Your task to perform on an android device: Clear all items from cart on walmart.com. Search for "corsair k70" on walmart.com, select the first entry, and add it to the cart. Image 0: 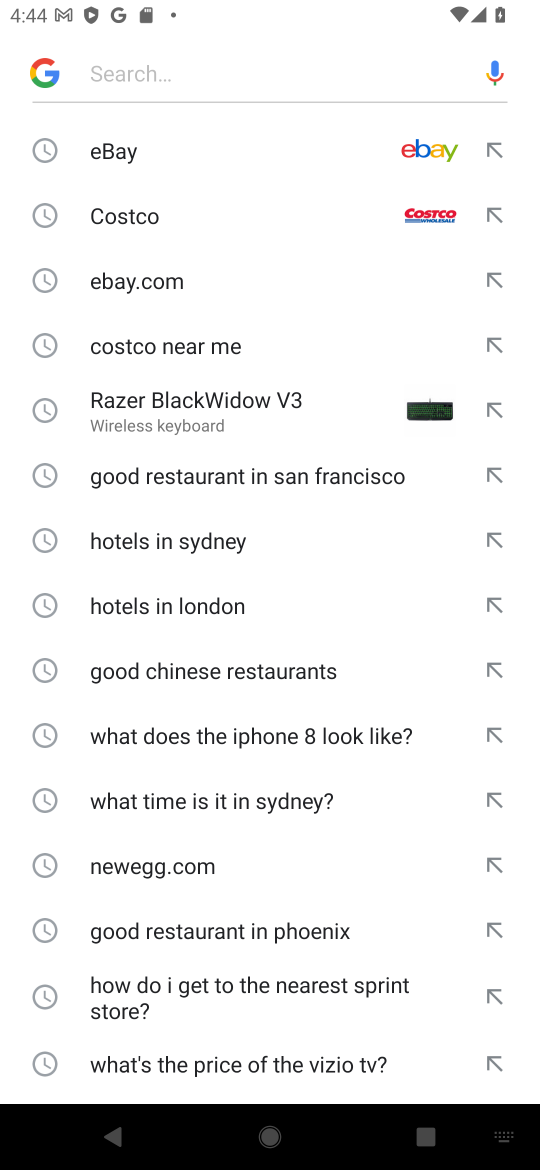
Step 0: type "walmart.com"
Your task to perform on an android device: Clear all items from cart on walmart.com. Search for "corsair k70" on walmart.com, select the first entry, and add it to the cart. Image 1: 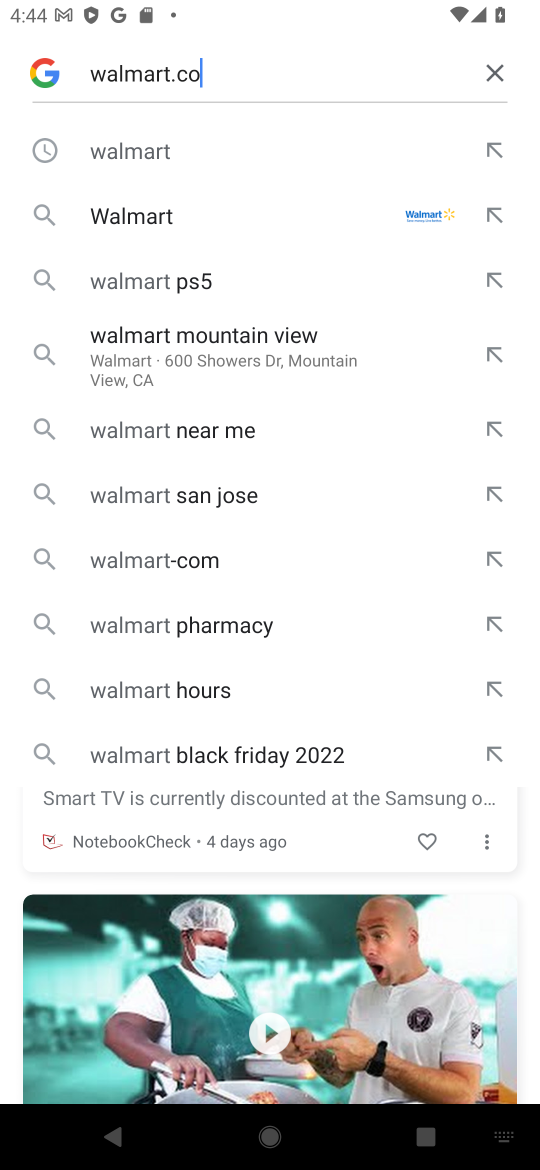
Step 1: type ""
Your task to perform on an android device: Clear all items from cart on walmart.com. Search for "corsair k70" on walmart.com, select the first entry, and add it to the cart. Image 2: 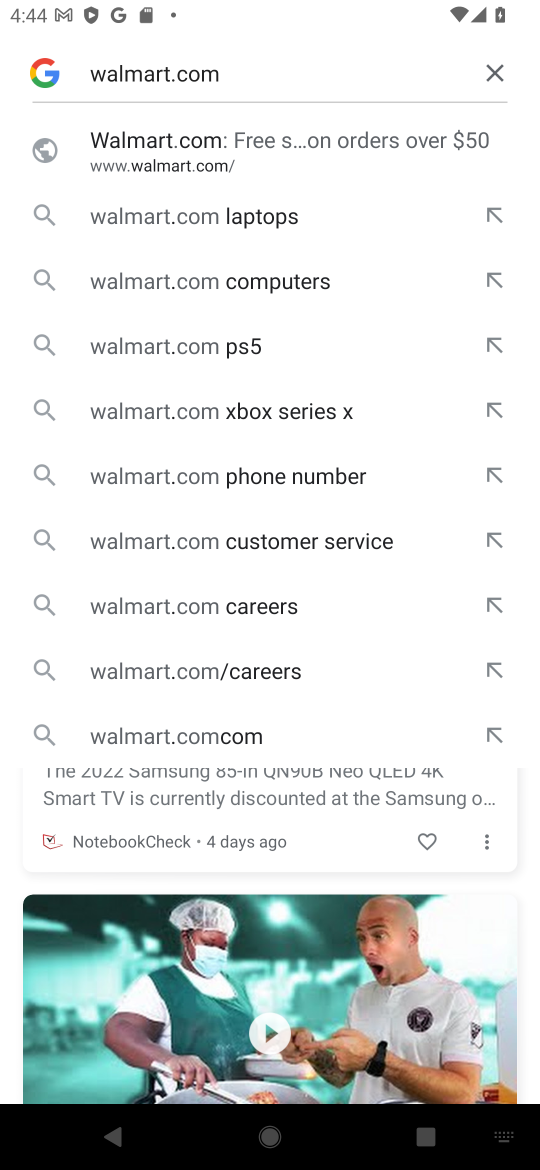
Step 2: press enter
Your task to perform on an android device: Clear all items from cart on walmart.com. Search for "corsair k70" on walmart.com, select the first entry, and add it to the cart. Image 3: 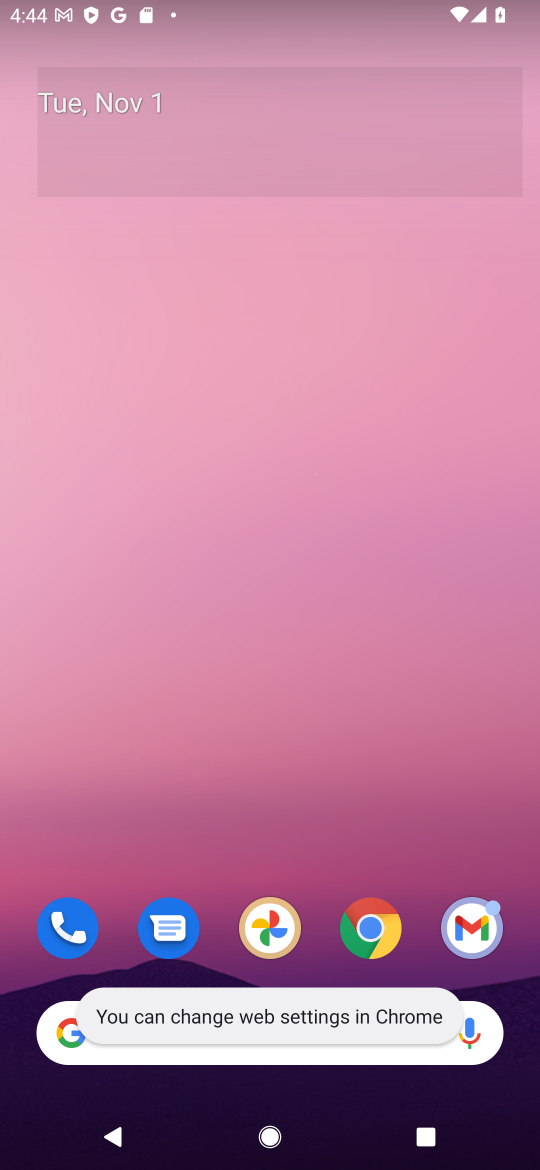
Step 3: click (364, 937)
Your task to perform on an android device: Clear all items from cart on walmart.com. Search for "corsair k70" on walmart.com, select the first entry, and add it to the cart. Image 4: 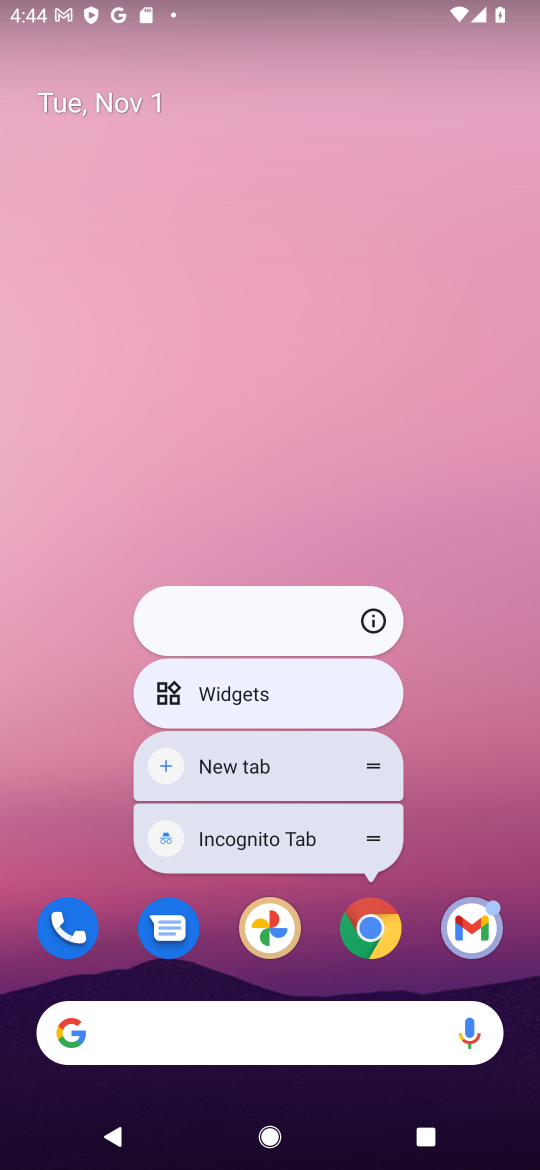
Step 4: click (375, 941)
Your task to perform on an android device: Clear all items from cart on walmart.com. Search for "corsair k70" on walmart.com, select the first entry, and add it to the cart. Image 5: 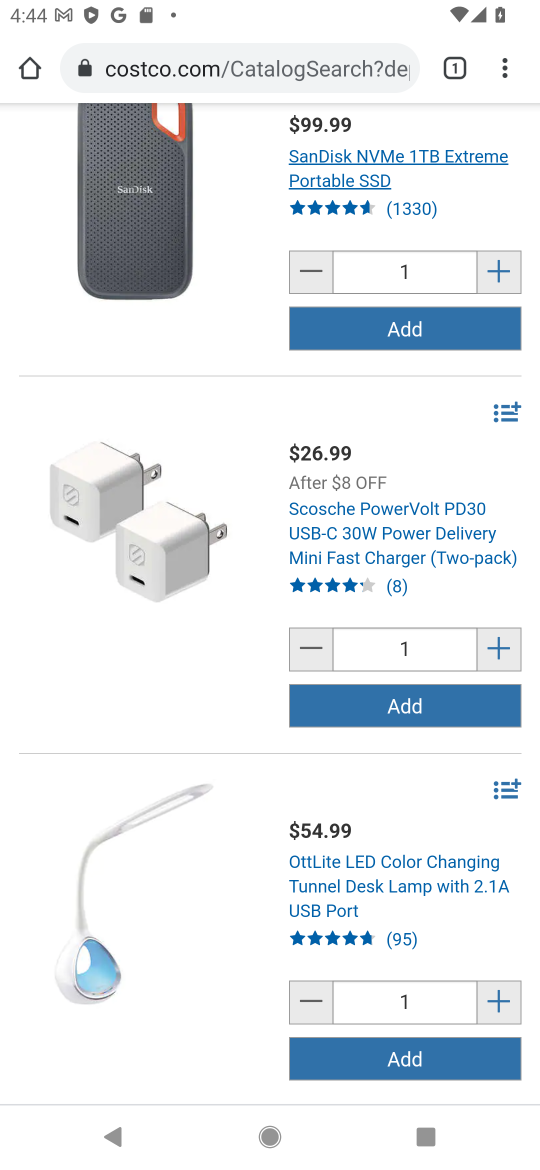
Step 5: click (289, 72)
Your task to perform on an android device: Clear all items from cart on walmart.com. Search for "corsair k70" on walmart.com, select the first entry, and add it to the cart. Image 6: 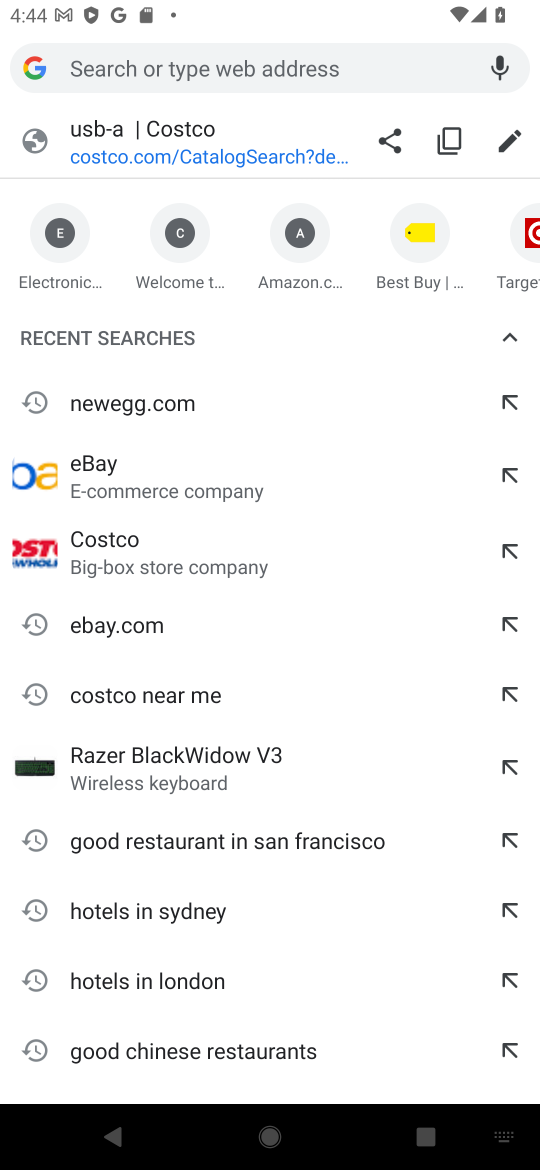
Step 6: type "walmart.com"
Your task to perform on an android device: Clear all items from cart on walmart.com. Search for "corsair k70" on walmart.com, select the first entry, and add it to the cart. Image 7: 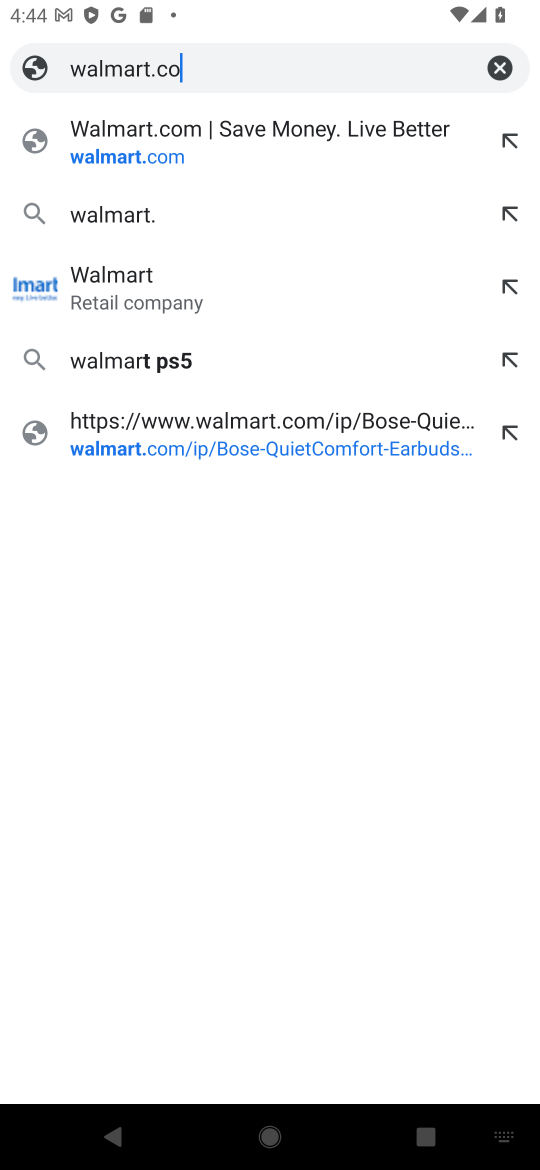
Step 7: type ""
Your task to perform on an android device: Clear all items from cart on walmart.com. Search for "corsair k70" on walmart.com, select the first entry, and add it to the cart. Image 8: 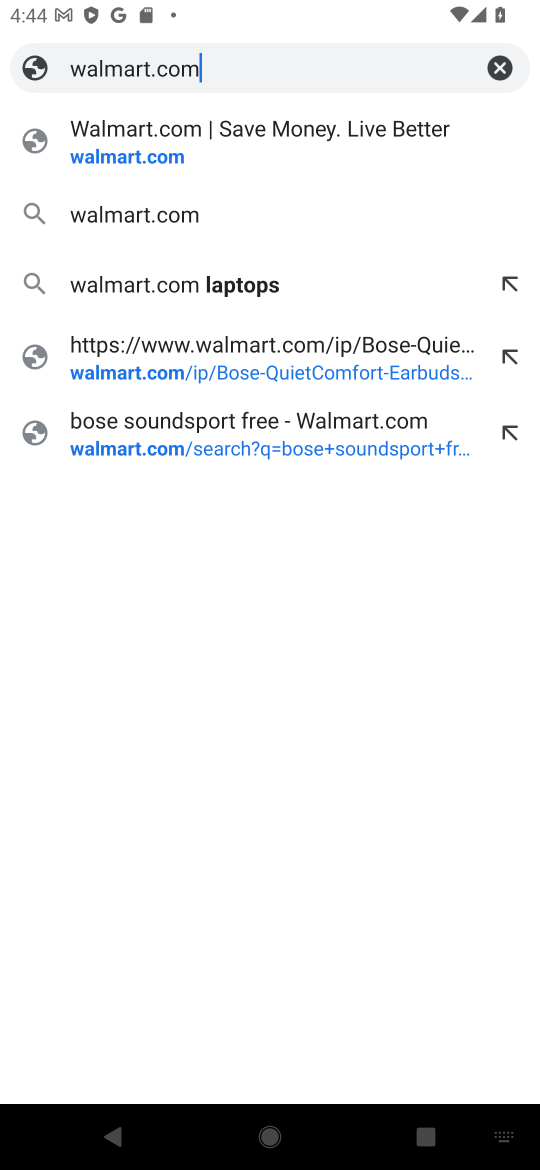
Step 8: press enter
Your task to perform on an android device: Clear all items from cart on walmart.com. Search for "corsair k70" on walmart.com, select the first entry, and add it to the cart. Image 9: 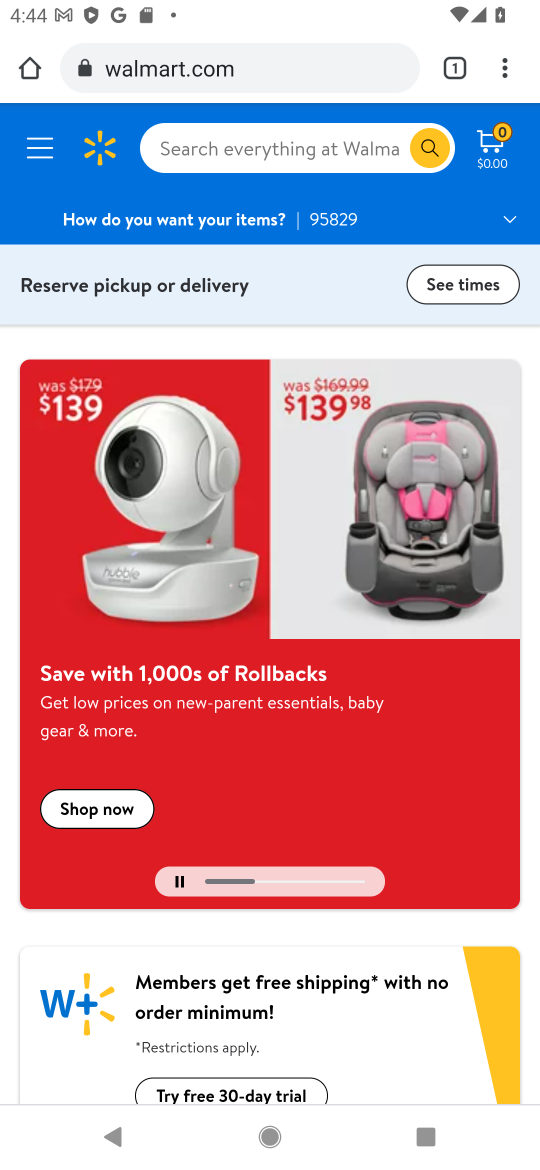
Step 9: click (280, 144)
Your task to perform on an android device: Clear all items from cart on walmart.com. Search for "corsair k70" on walmart.com, select the first entry, and add it to the cart. Image 10: 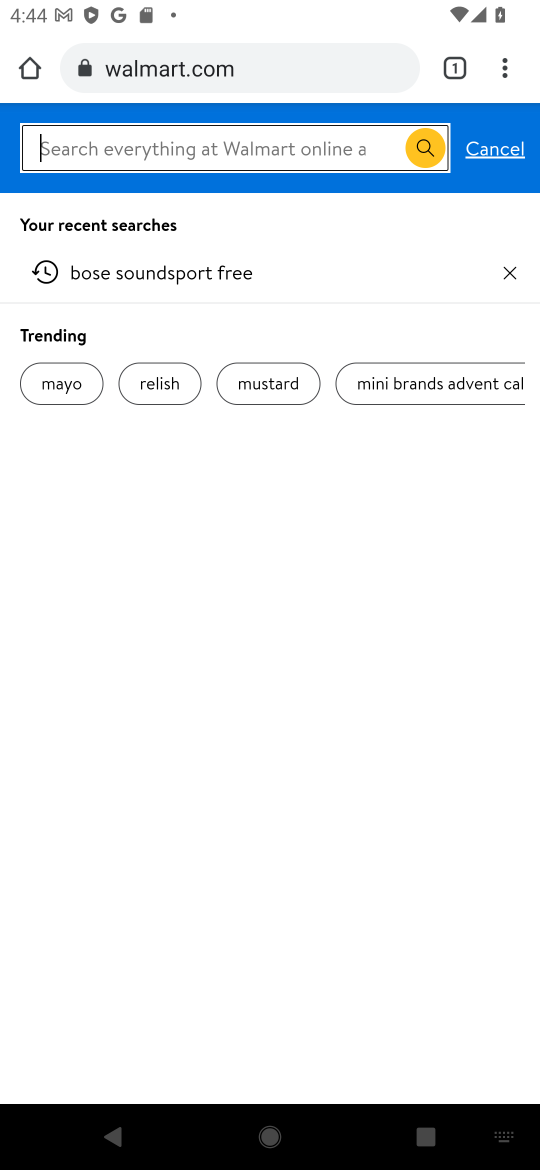
Step 10: click (496, 156)
Your task to perform on an android device: Clear all items from cart on walmart.com. Search for "corsair k70" on walmart.com, select the first entry, and add it to the cart. Image 11: 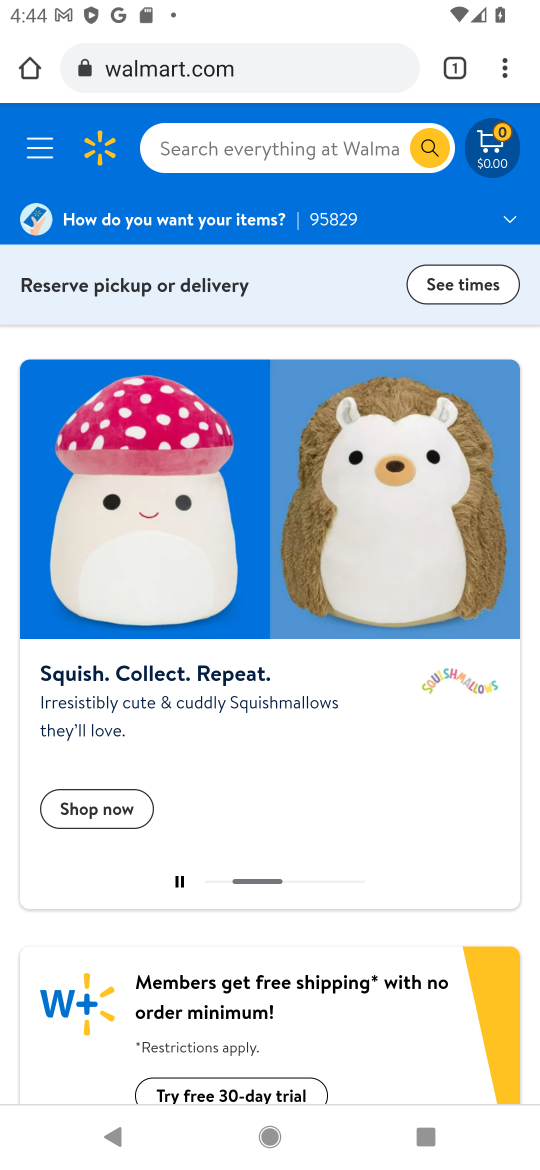
Step 11: click (496, 156)
Your task to perform on an android device: Clear all items from cart on walmart.com. Search for "corsair k70" on walmart.com, select the first entry, and add it to the cart. Image 12: 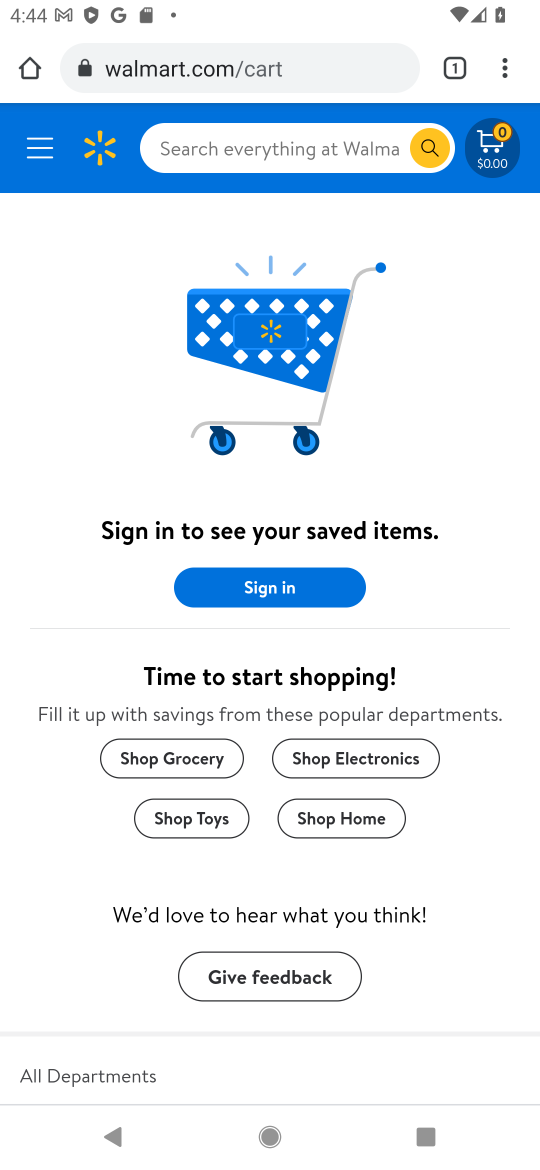
Step 12: click (246, 141)
Your task to perform on an android device: Clear all items from cart on walmart.com. Search for "corsair k70" on walmart.com, select the first entry, and add it to the cart. Image 13: 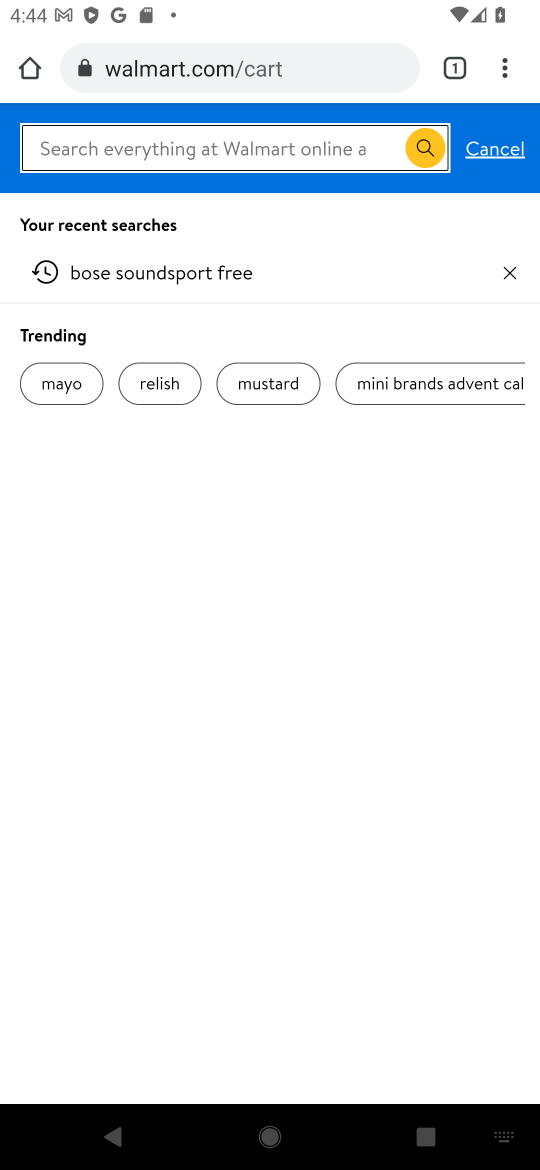
Step 13: type "corsair k70"
Your task to perform on an android device: Clear all items from cart on walmart.com. Search for "corsair k70" on walmart.com, select the first entry, and add it to the cart. Image 14: 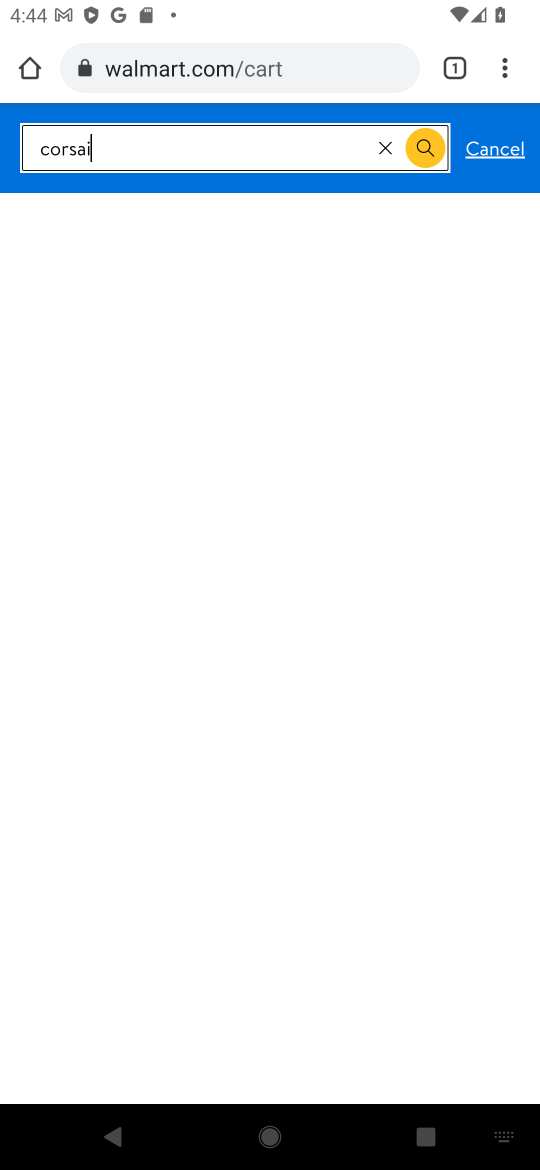
Step 14: type ""
Your task to perform on an android device: Clear all items from cart on walmart.com. Search for "corsair k70" on walmart.com, select the first entry, and add it to the cart. Image 15: 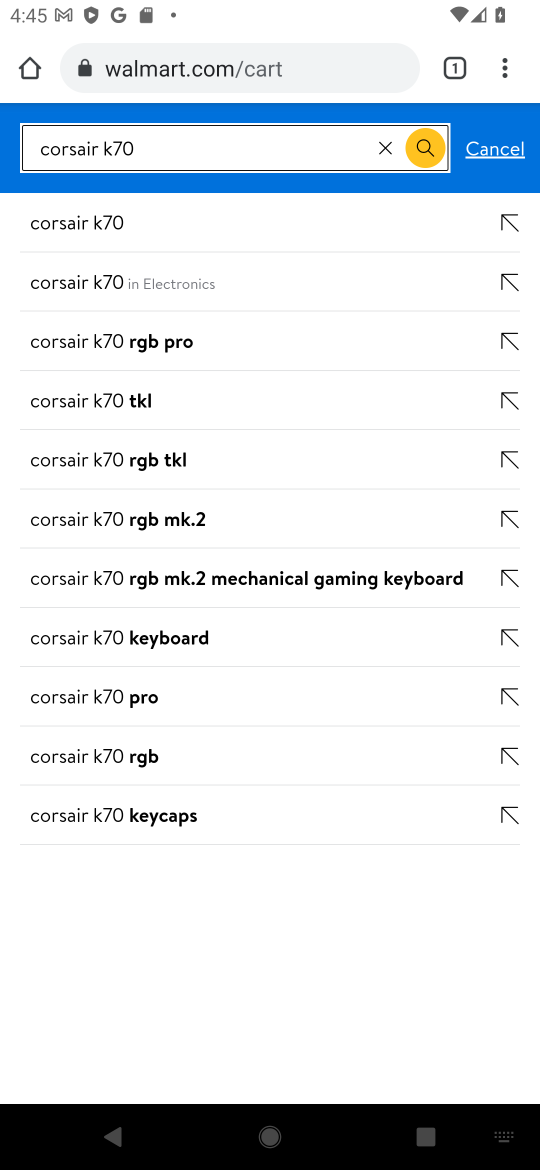
Step 15: press enter
Your task to perform on an android device: Clear all items from cart on walmart.com. Search for "corsair k70" on walmart.com, select the first entry, and add it to the cart. Image 16: 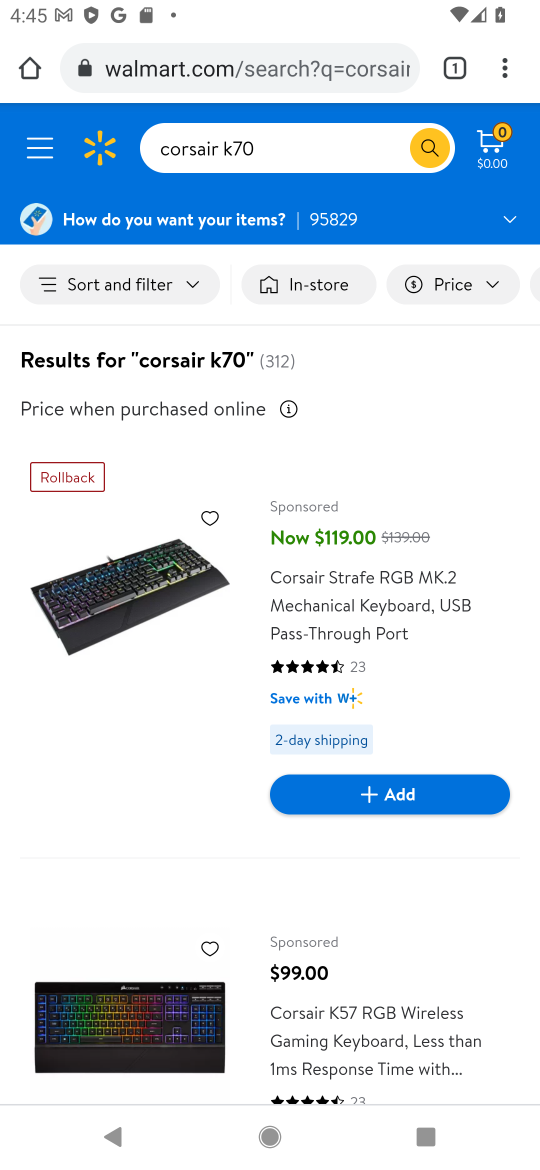
Step 16: drag from (403, 1008) to (334, 265)
Your task to perform on an android device: Clear all items from cart on walmart.com. Search for "corsair k70" on walmart.com, select the first entry, and add it to the cart. Image 17: 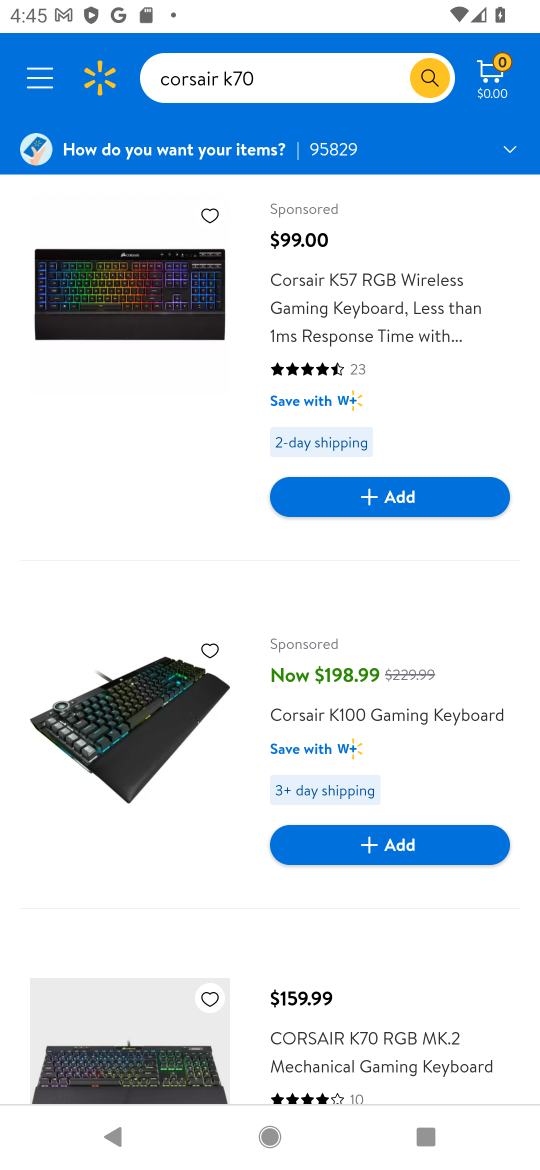
Step 17: drag from (395, 1025) to (377, 633)
Your task to perform on an android device: Clear all items from cart on walmart.com. Search for "corsair k70" on walmart.com, select the first entry, and add it to the cart. Image 18: 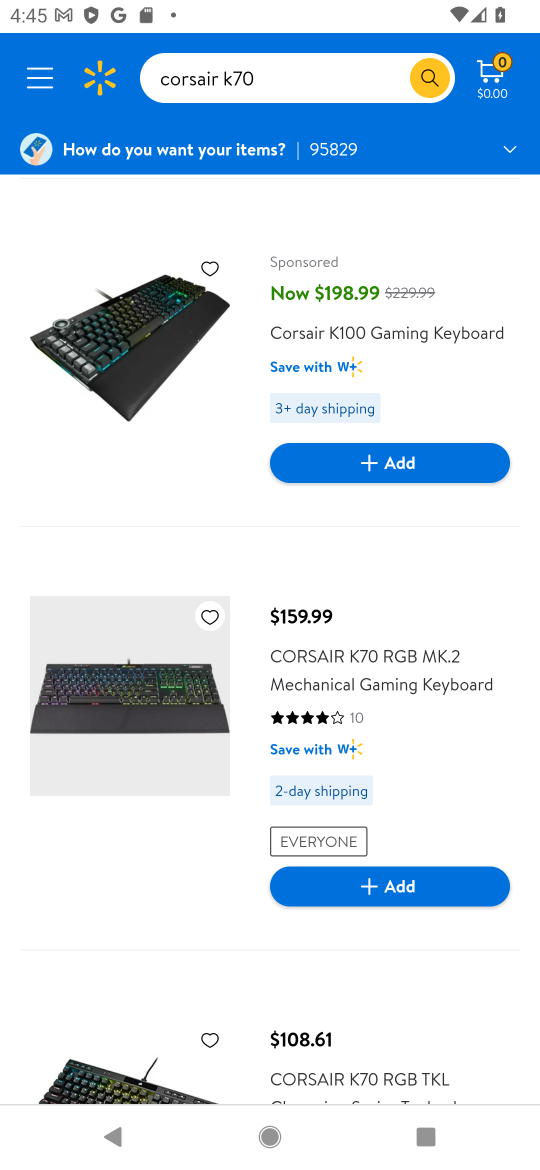
Step 18: click (338, 694)
Your task to perform on an android device: Clear all items from cart on walmart.com. Search for "corsair k70" on walmart.com, select the first entry, and add it to the cart. Image 19: 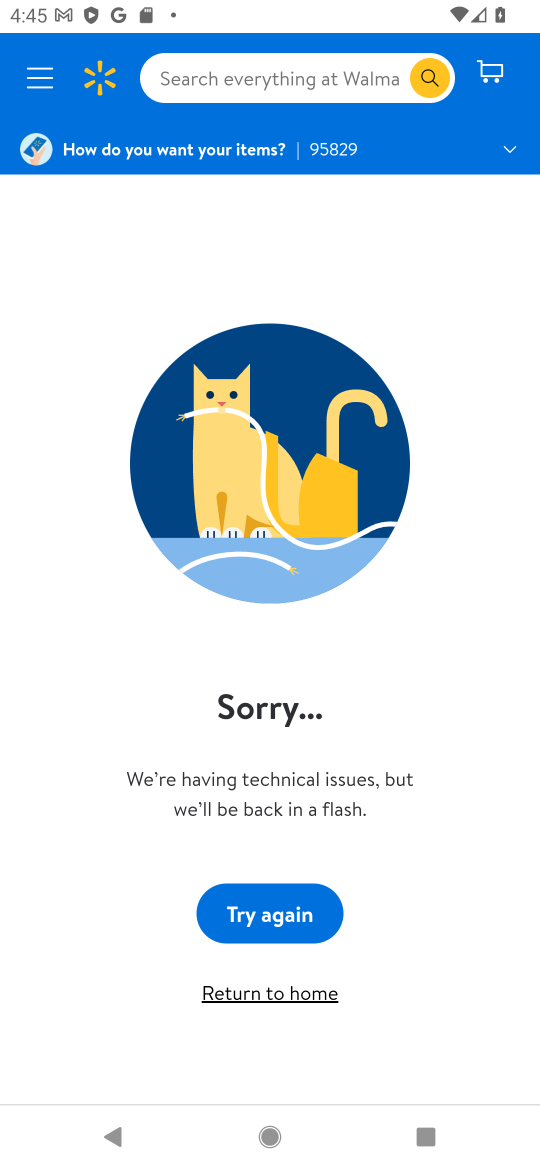
Step 19: click (275, 993)
Your task to perform on an android device: Clear all items from cart on walmart.com. Search for "corsair k70" on walmart.com, select the first entry, and add it to the cart. Image 20: 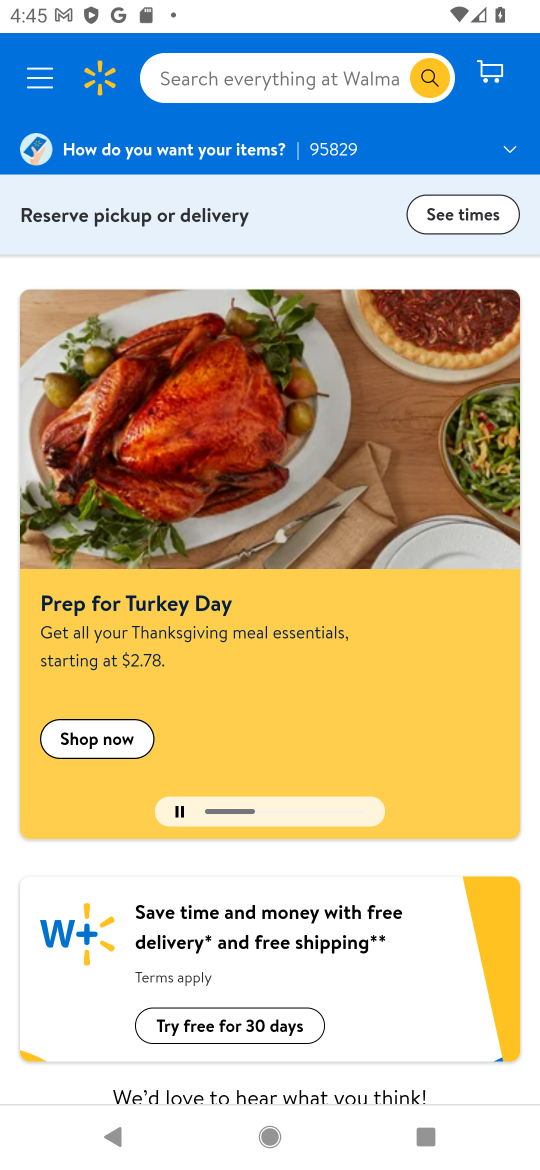
Step 20: click (308, 75)
Your task to perform on an android device: Clear all items from cart on walmart.com. Search for "corsair k70" on walmart.com, select the first entry, and add it to the cart. Image 21: 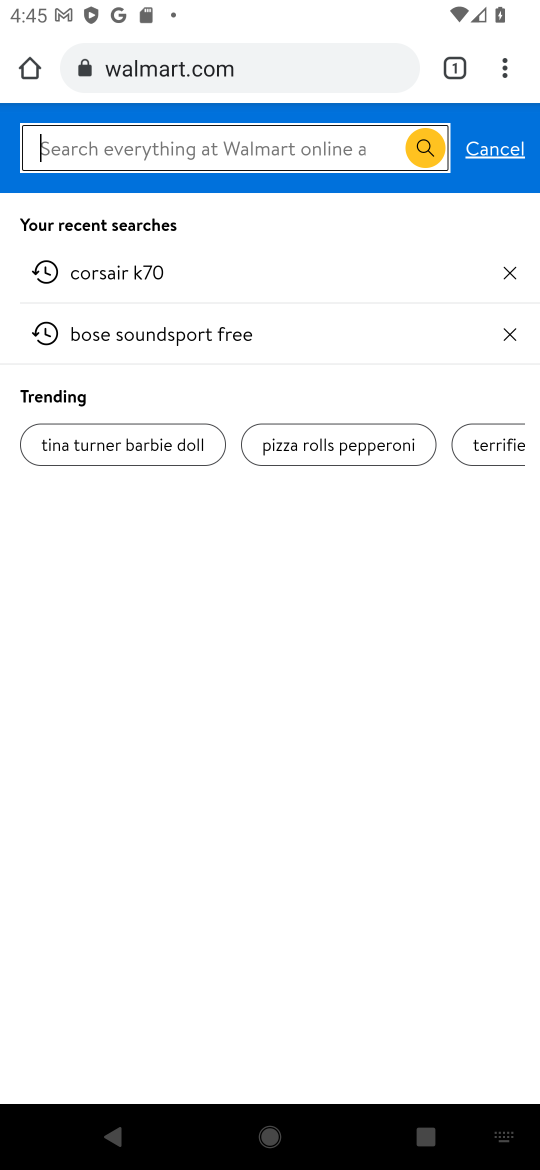
Step 21: type "corsair k70"
Your task to perform on an android device: Clear all items from cart on walmart.com. Search for "corsair k70" on walmart.com, select the first entry, and add it to the cart. Image 22: 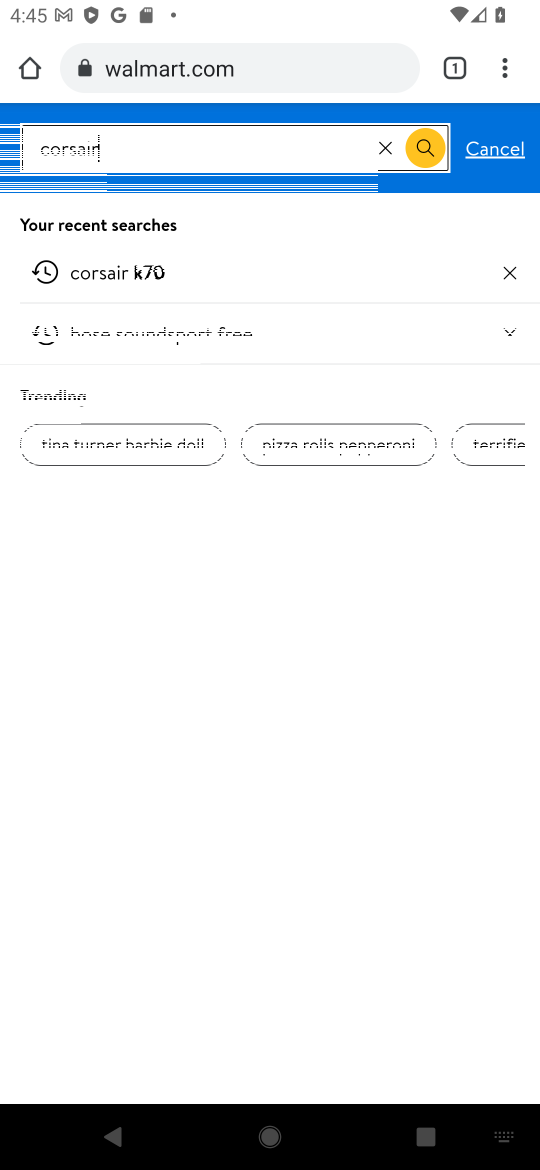
Step 22: type ""
Your task to perform on an android device: Clear all items from cart on walmart.com. Search for "corsair k70" on walmart.com, select the first entry, and add it to the cart. Image 23: 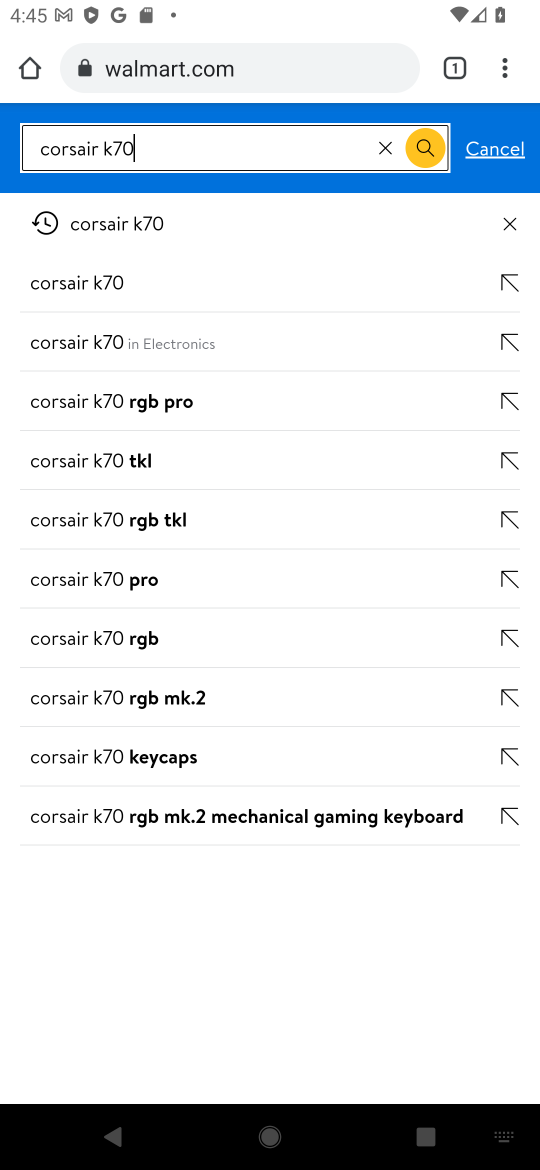
Step 23: press enter
Your task to perform on an android device: Clear all items from cart on walmart.com. Search for "corsair k70" on walmart.com, select the first entry, and add it to the cart. Image 24: 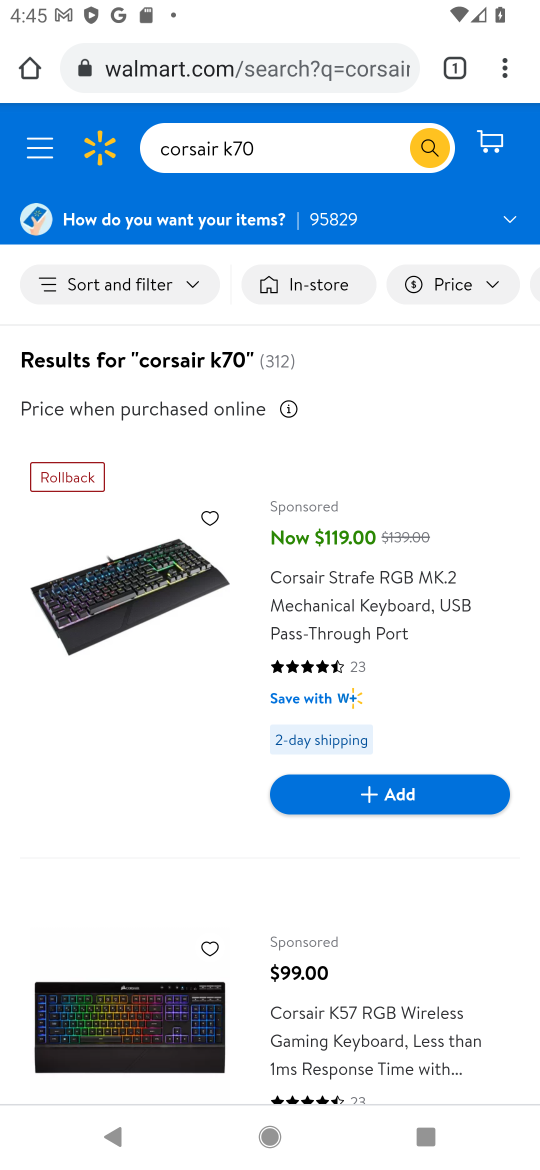
Step 24: drag from (378, 998) to (317, 289)
Your task to perform on an android device: Clear all items from cart on walmart.com. Search for "corsair k70" on walmart.com, select the first entry, and add it to the cart. Image 25: 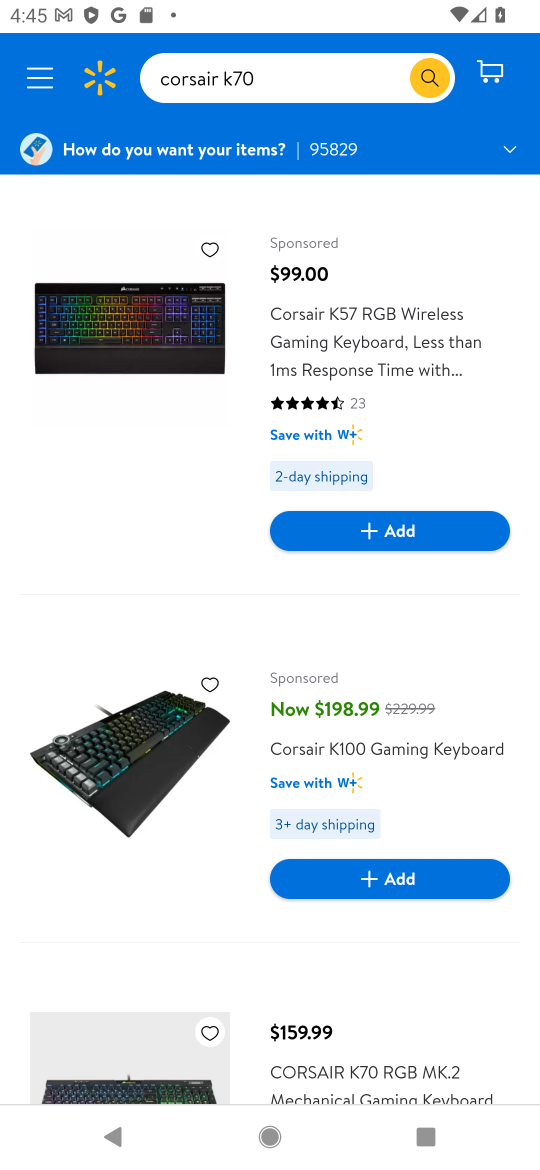
Step 25: drag from (358, 1031) to (383, 421)
Your task to perform on an android device: Clear all items from cart on walmart.com. Search for "corsair k70" on walmart.com, select the first entry, and add it to the cart. Image 26: 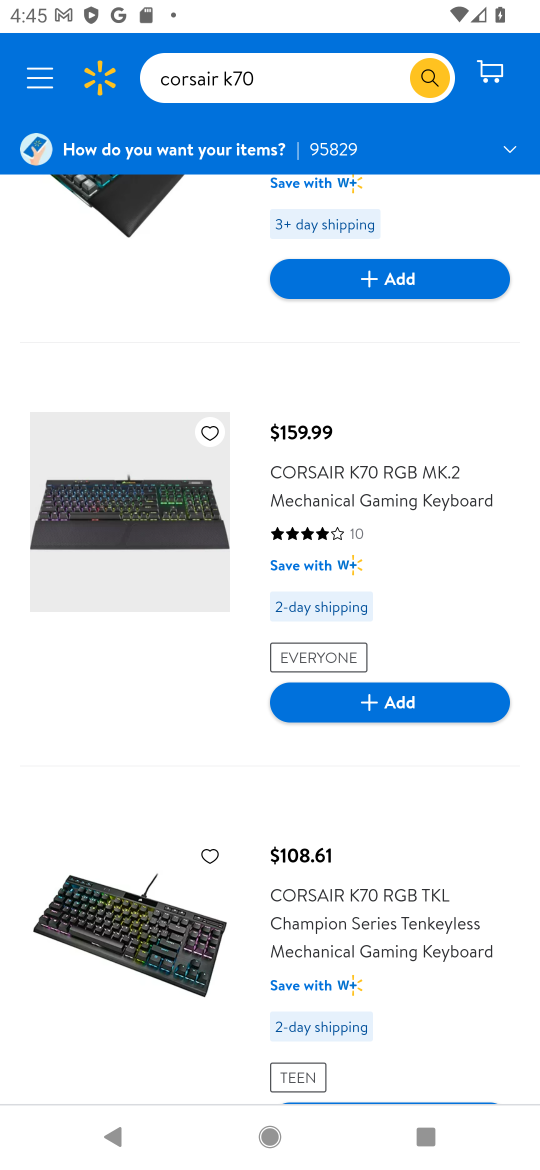
Step 26: click (364, 704)
Your task to perform on an android device: Clear all items from cart on walmart.com. Search for "corsair k70" on walmart.com, select the first entry, and add it to the cart. Image 27: 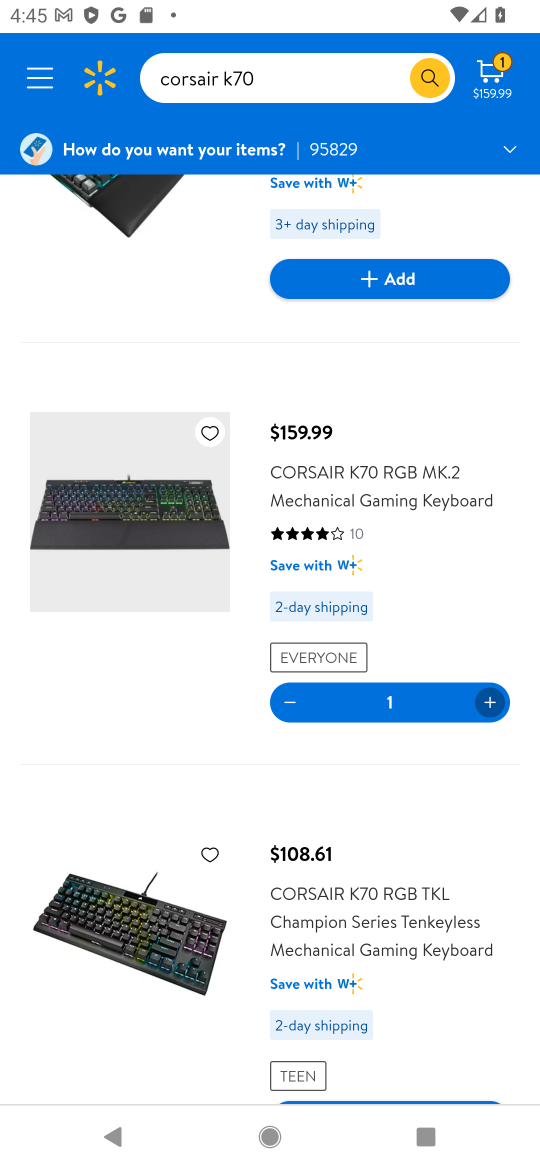
Step 27: click (488, 92)
Your task to perform on an android device: Clear all items from cart on walmart.com. Search for "corsair k70" on walmart.com, select the first entry, and add it to the cart. Image 28: 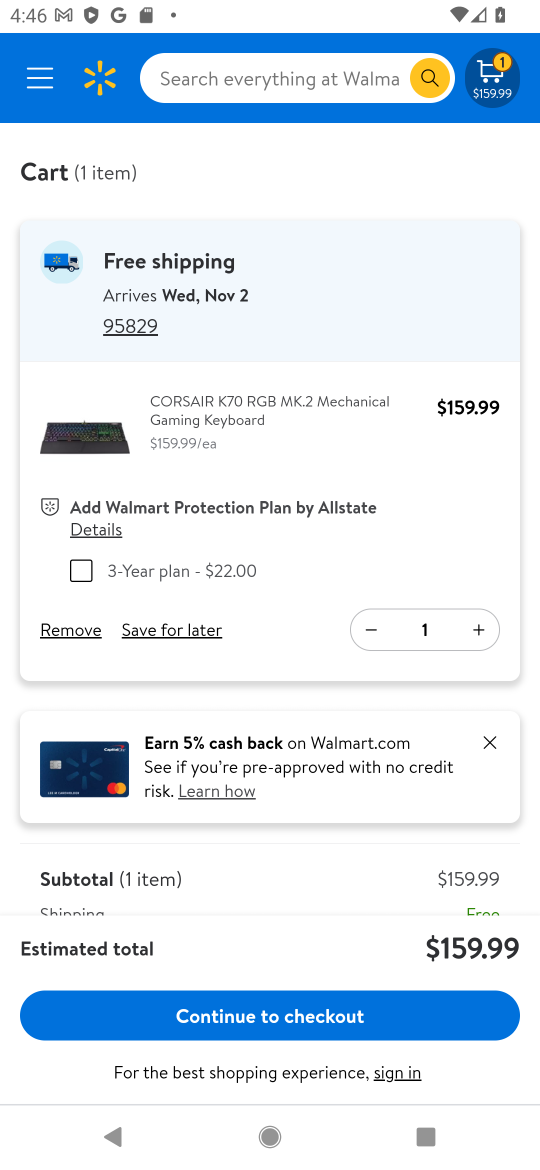
Step 28: task complete